Your task to perform on an android device: turn off wifi Image 0: 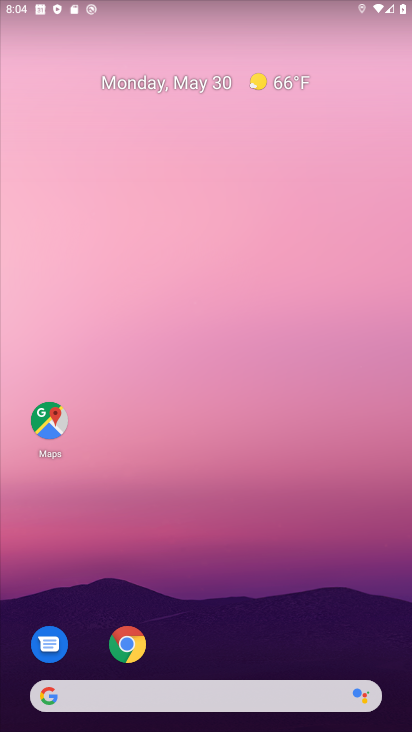
Step 0: drag from (213, 629) to (257, 70)
Your task to perform on an android device: turn off wifi Image 1: 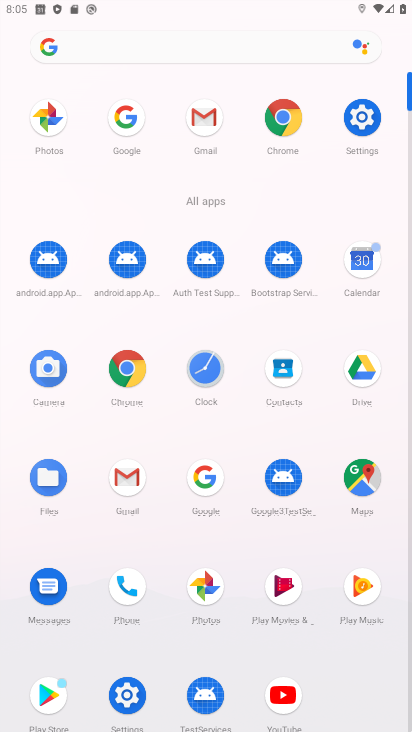
Step 1: click (368, 114)
Your task to perform on an android device: turn off wifi Image 2: 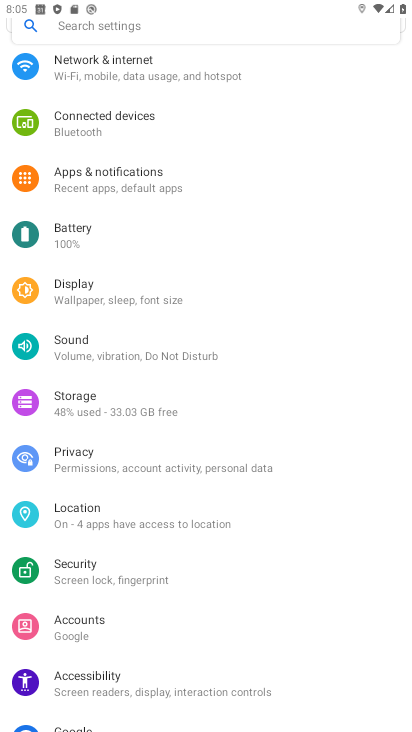
Step 2: click (102, 68)
Your task to perform on an android device: turn off wifi Image 3: 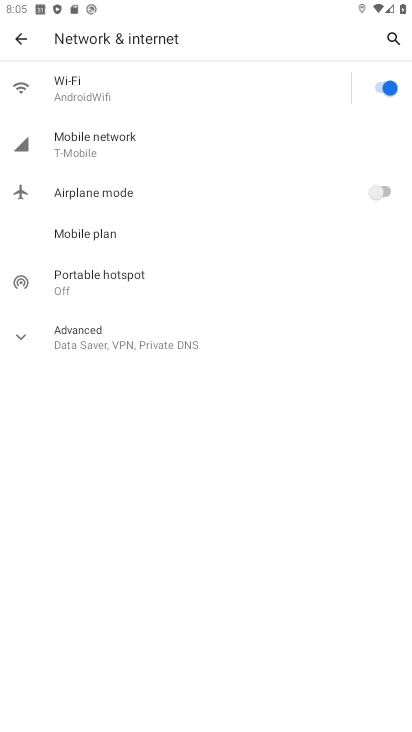
Step 3: click (381, 91)
Your task to perform on an android device: turn off wifi Image 4: 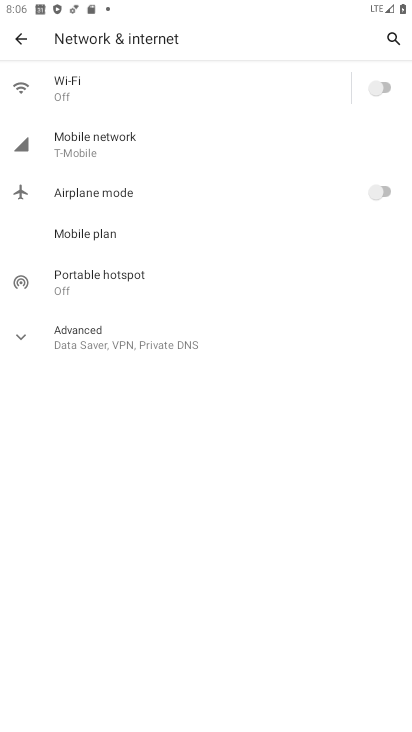
Step 4: task complete